Your task to perform on an android device: Open the Play Movies app and select the watchlist tab. Image 0: 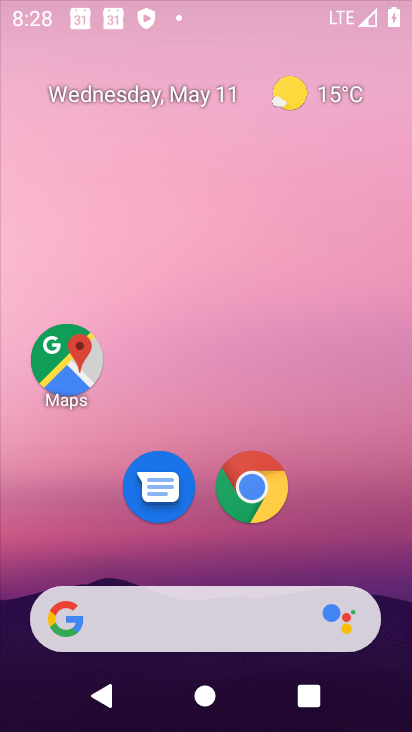
Step 0: drag from (281, 657) to (187, 276)
Your task to perform on an android device: Open the Play Movies app and select the watchlist tab. Image 1: 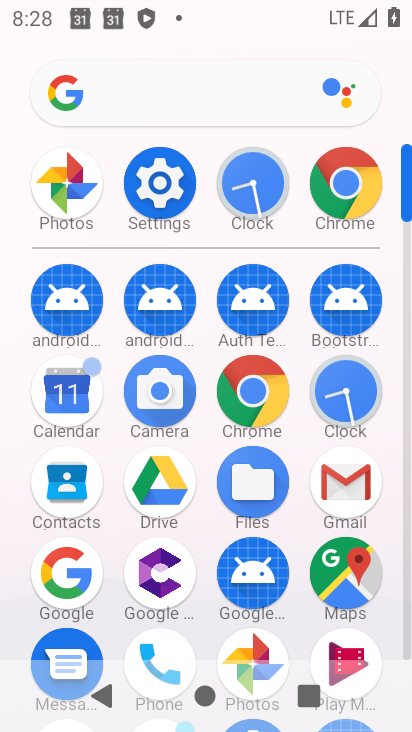
Step 1: click (339, 641)
Your task to perform on an android device: Open the Play Movies app and select the watchlist tab. Image 2: 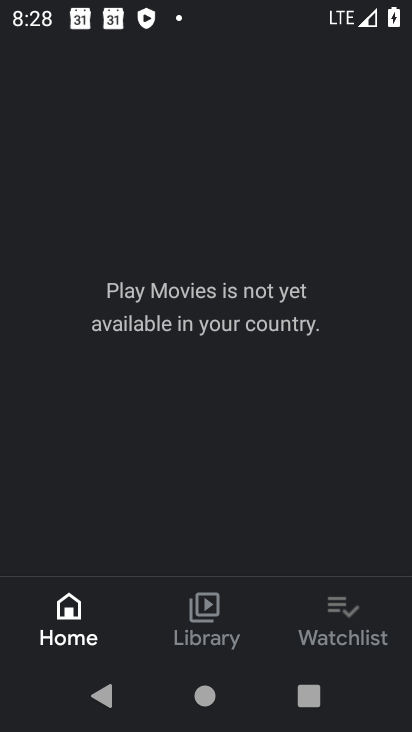
Step 2: click (338, 625)
Your task to perform on an android device: Open the Play Movies app and select the watchlist tab. Image 3: 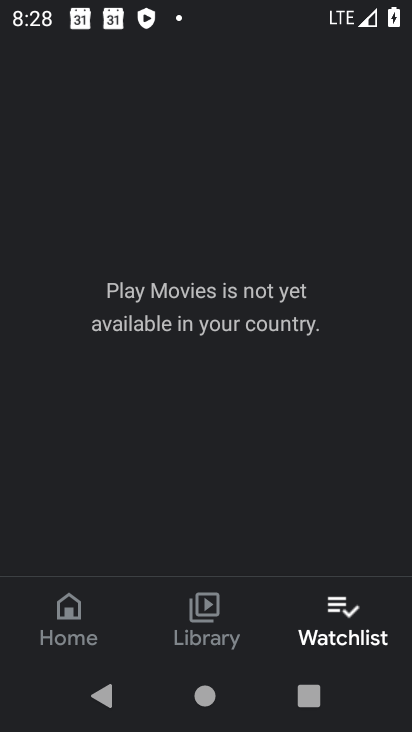
Step 3: task complete